Your task to perform on an android device: Go to privacy settings Image 0: 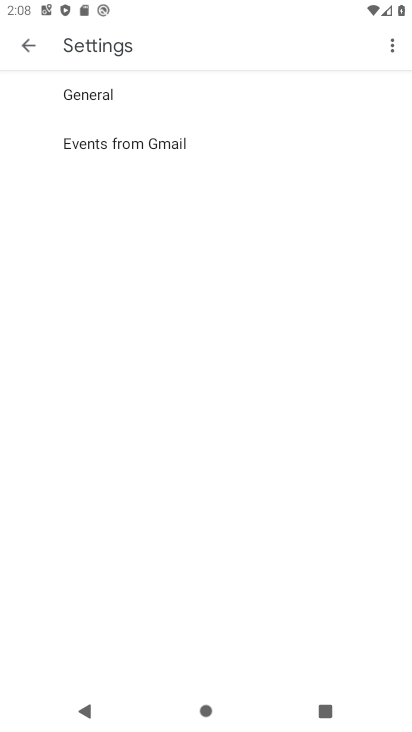
Step 0: press home button
Your task to perform on an android device: Go to privacy settings Image 1: 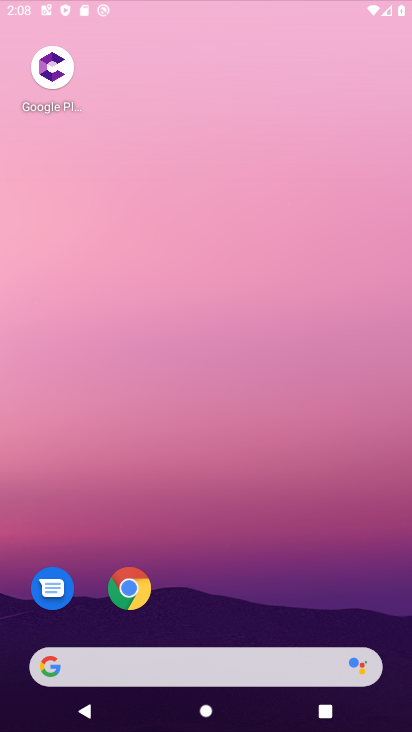
Step 1: drag from (162, 655) to (258, 39)
Your task to perform on an android device: Go to privacy settings Image 2: 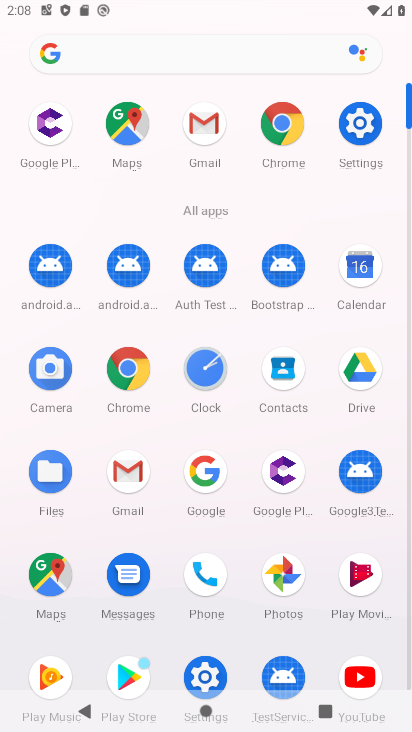
Step 2: click (389, 117)
Your task to perform on an android device: Go to privacy settings Image 3: 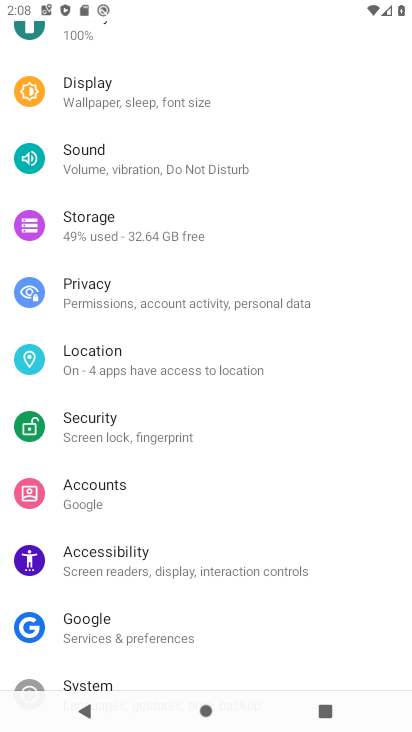
Step 3: click (135, 284)
Your task to perform on an android device: Go to privacy settings Image 4: 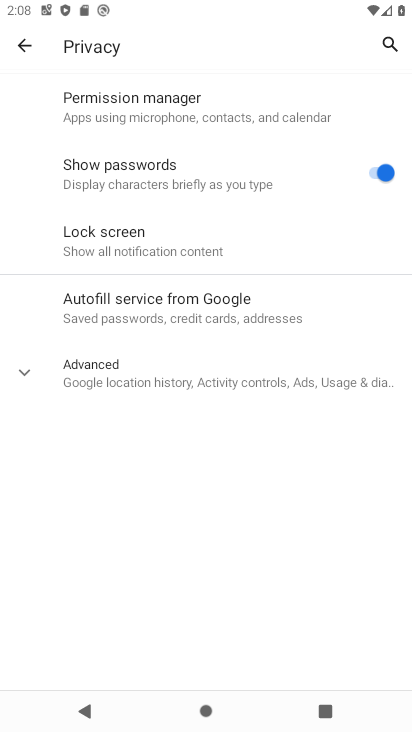
Step 4: task complete